Your task to perform on an android device: Is it going to rain tomorrow? Image 0: 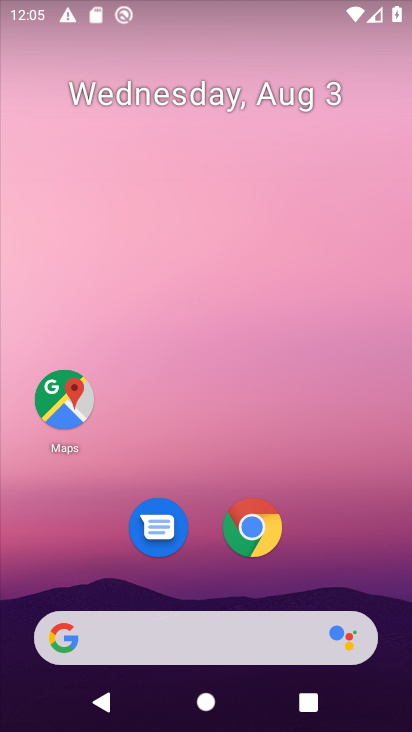
Step 0: click (86, 645)
Your task to perform on an android device: Is it going to rain tomorrow? Image 1: 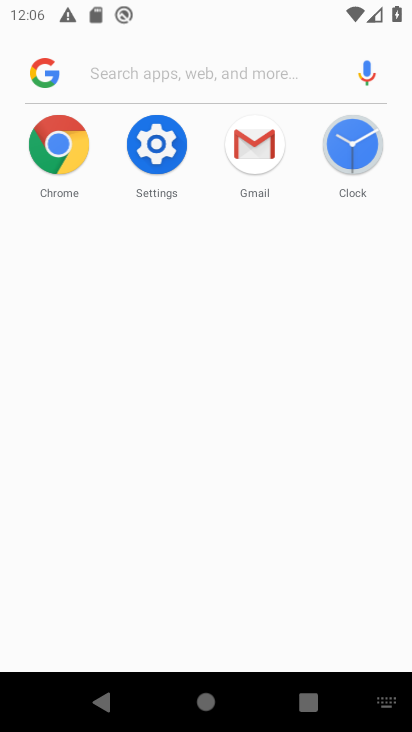
Step 1: type "Is it going to rain tomorrow?"
Your task to perform on an android device: Is it going to rain tomorrow? Image 2: 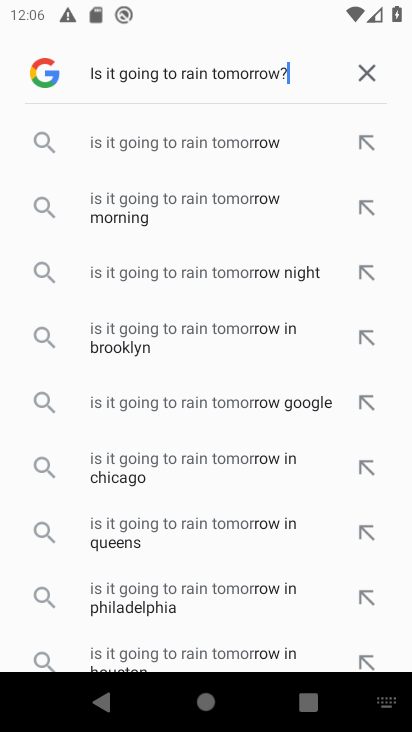
Step 2: type ""
Your task to perform on an android device: Is it going to rain tomorrow? Image 3: 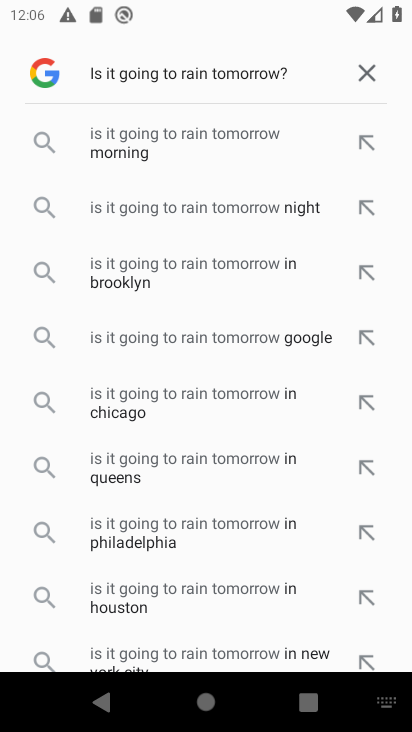
Step 3: type ""
Your task to perform on an android device: Is it going to rain tomorrow? Image 4: 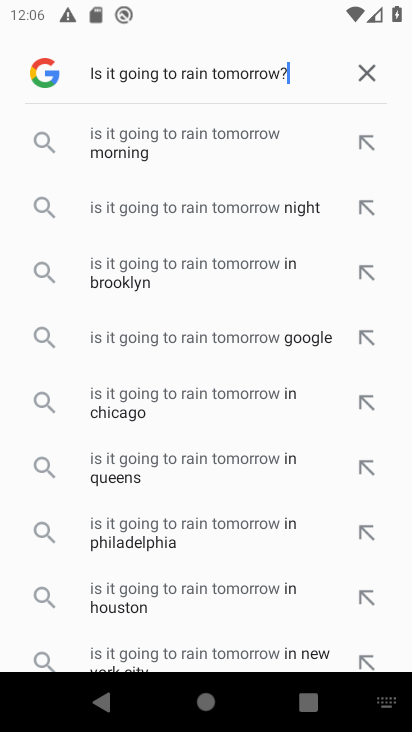
Step 4: type ""
Your task to perform on an android device: Is it going to rain tomorrow? Image 5: 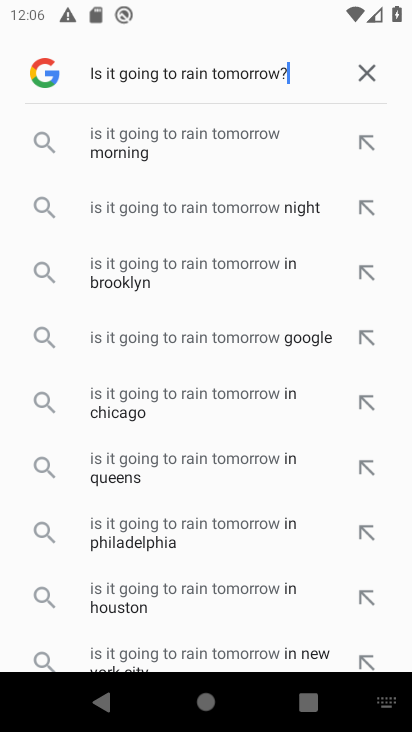
Step 5: task complete